Your task to perform on an android device: turn off location history Image 0: 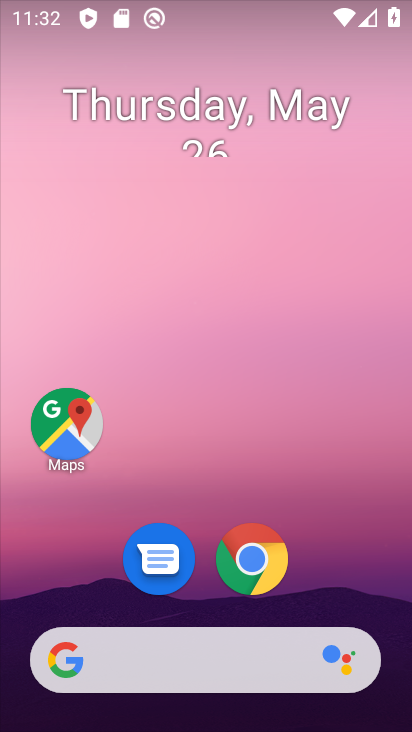
Step 0: drag from (363, 604) to (229, 101)
Your task to perform on an android device: turn off location history Image 1: 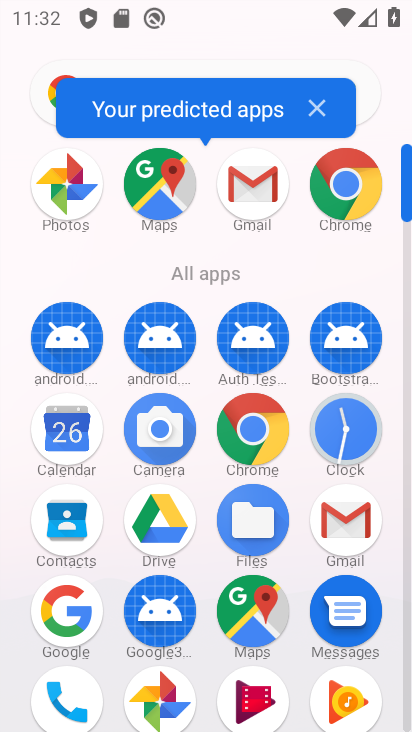
Step 1: drag from (295, 593) to (222, 155)
Your task to perform on an android device: turn off location history Image 2: 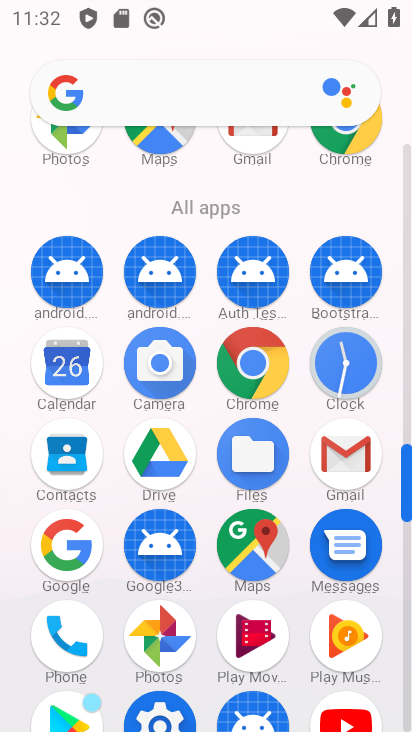
Step 2: click (168, 705)
Your task to perform on an android device: turn off location history Image 3: 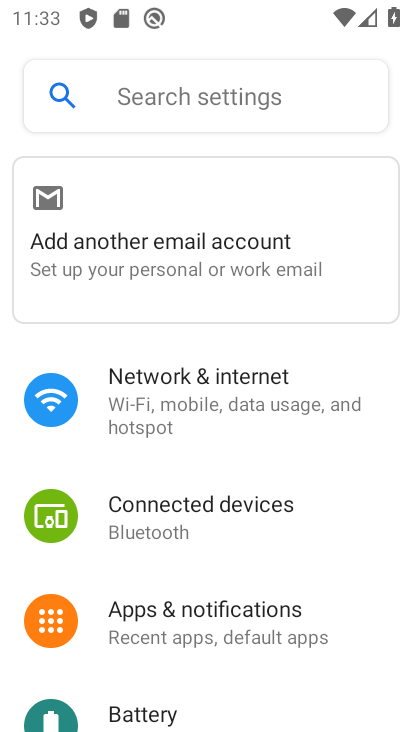
Step 3: drag from (155, 668) to (88, 0)
Your task to perform on an android device: turn off location history Image 4: 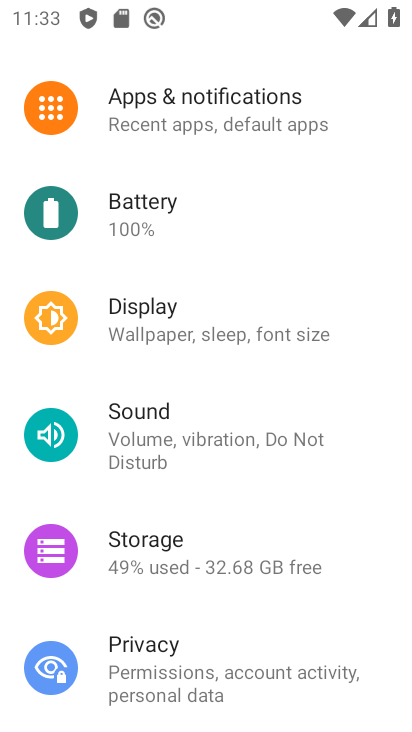
Step 4: drag from (272, 571) to (232, 136)
Your task to perform on an android device: turn off location history Image 5: 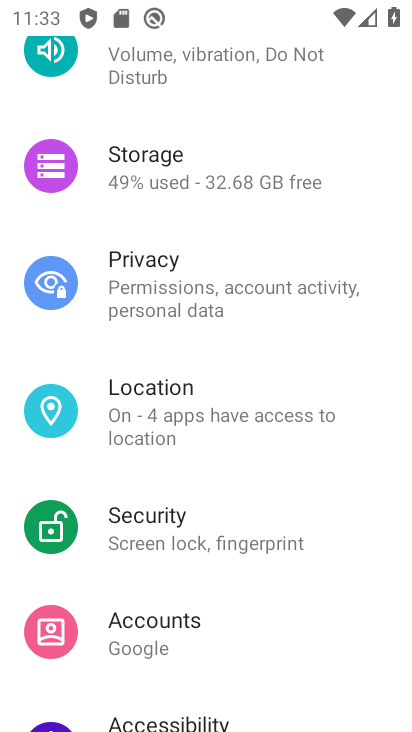
Step 5: click (216, 390)
Your task to perform on an android device: turn off location history Image 6: 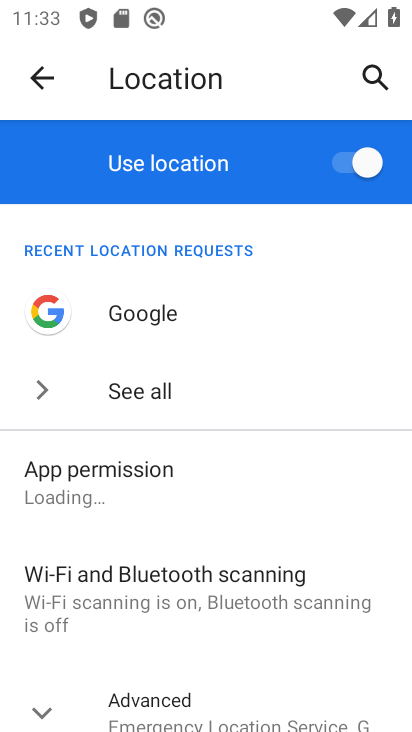
Step 6: drag from (204, 609) to (214, 137)
Your task to perform on an android device: turn off location history Image 7: 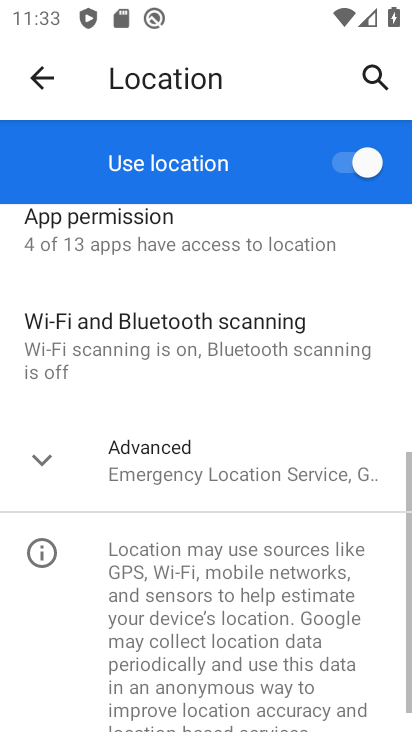
Step 7: click (185, 469)
Your task to perform on an android device: turn off location history Image 8: 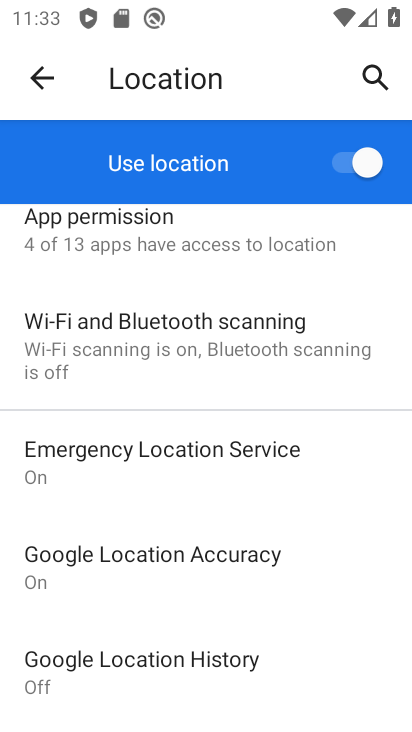
Step 8: click (200, 654)
Your task to perform on an android device: turn off location history Image 9: 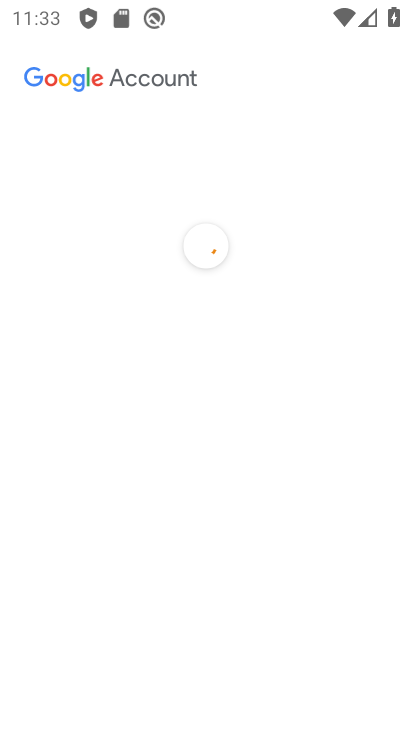
Step 9: task complete